Your task to perform on an android device: Set the phone to "Do not disturb". Image 0: 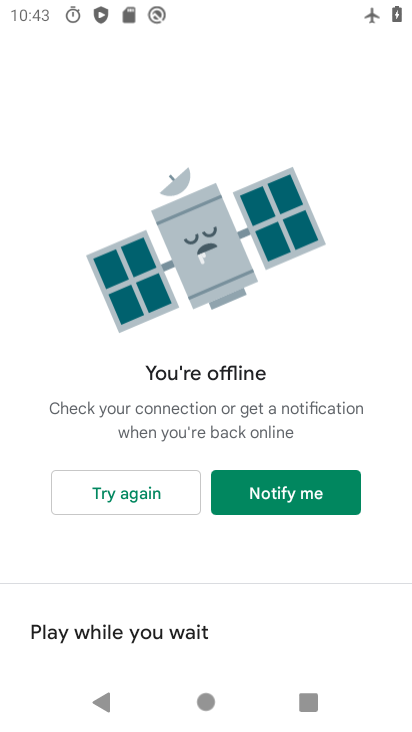
Step 0: press home button
Your task to perform on an android device: Set the phone to "Do not disturb". Image 1: 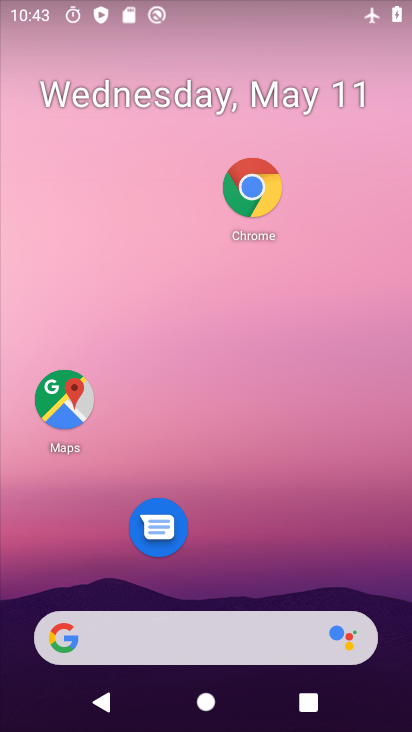
Step 1: drag from (222, 572) to (240, 232)
Your task to perform on an android device: Set the phone to "Do not disturb". Image 2: 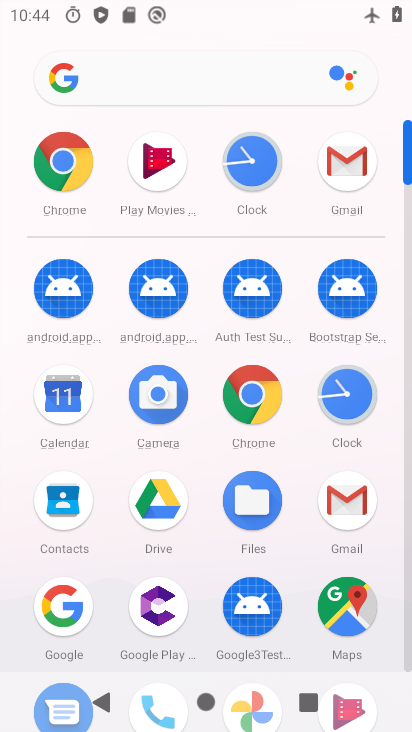
Step 2: drag from (250, 14) to (180, 602)
Your task to perform on an android device: Set the phone to "Do not disturb". Image 3: 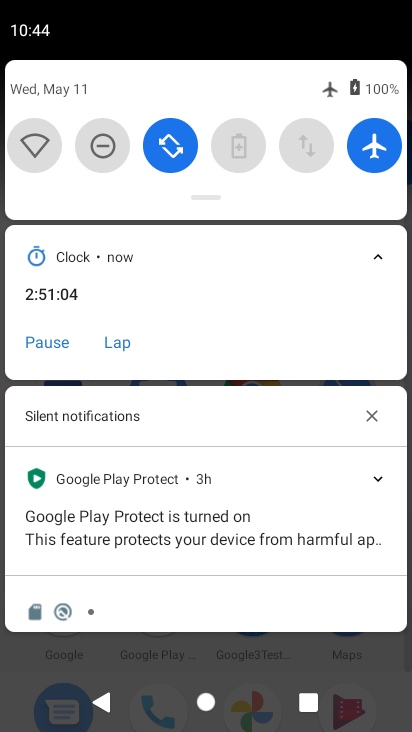
Step 3: click (111, 155)
Your task to perform on an android device: Set the phone to "Do not disturb". Image 4: 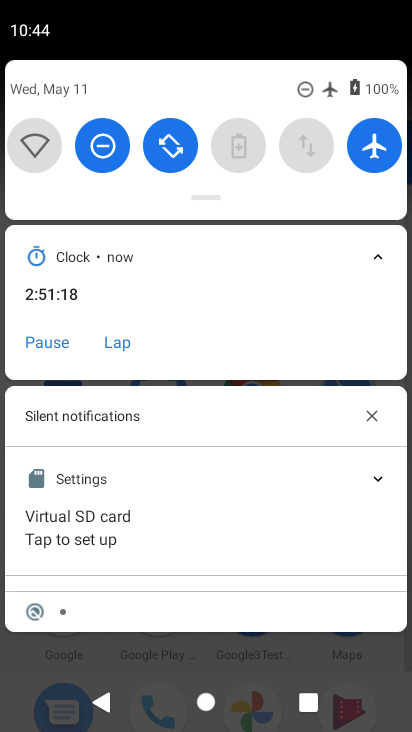
Step 4: task complete